Your task to perform on an android device: change keyboard looks Image 0: 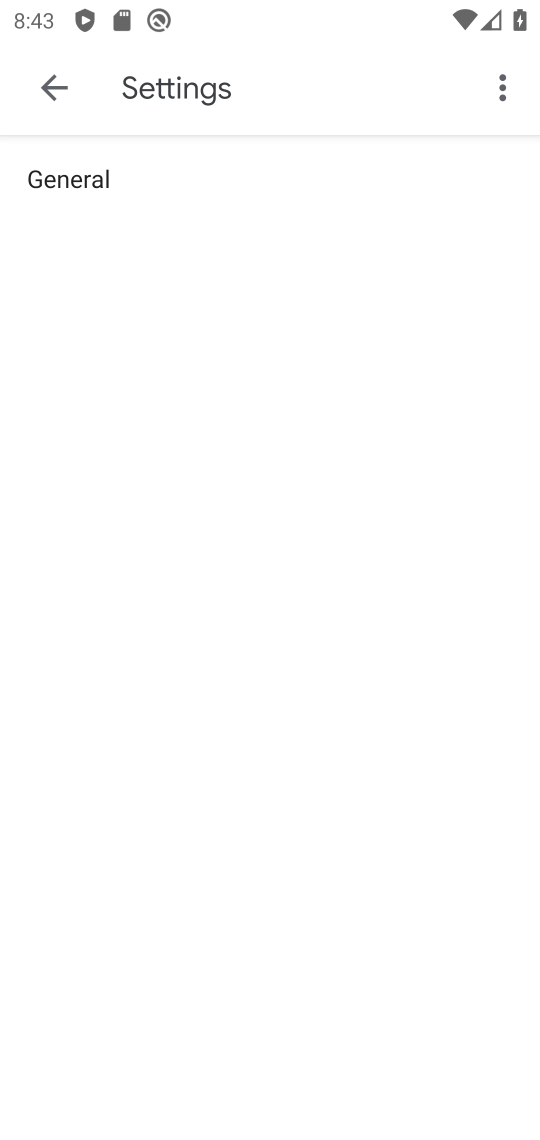
Step 0: press home button
Your task to perform on an android device: change keyboard looks Image 1: 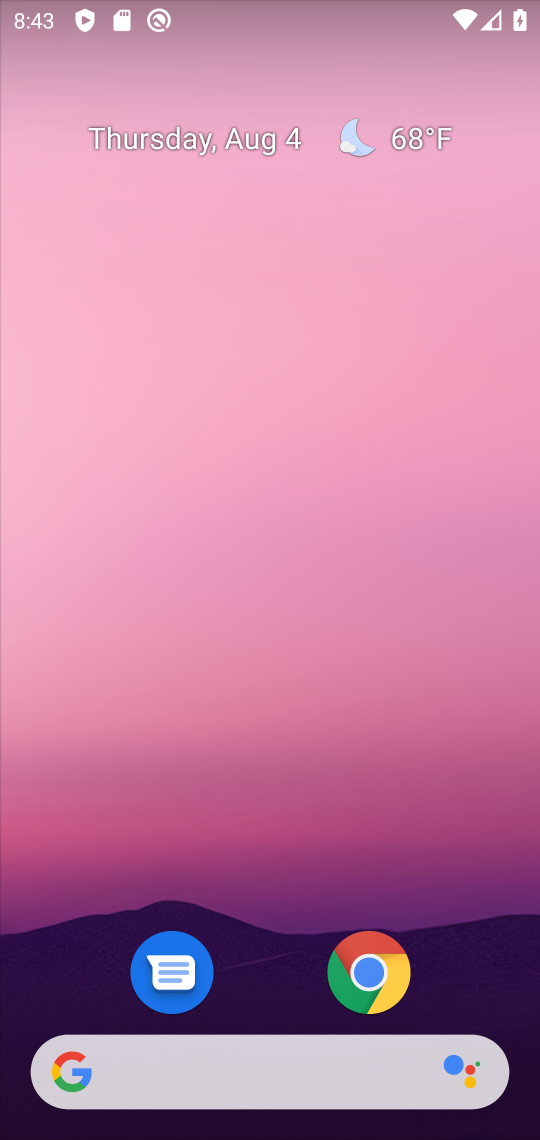
Step 1: drag from (279, 873) to (233, 30)
Your task to perform on an android device: change keyboard looks Image 2: 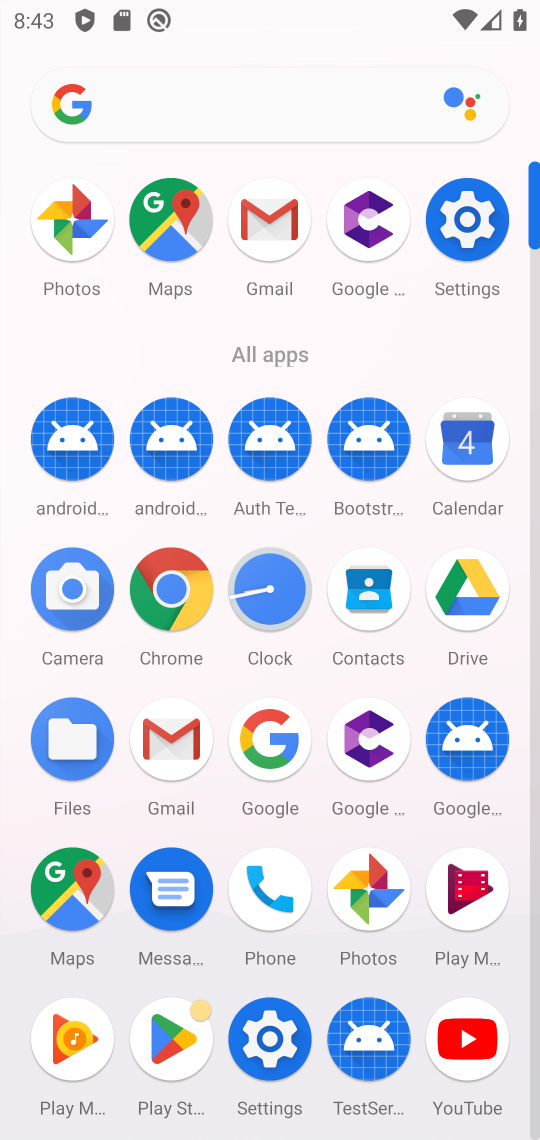
Step 2: click (464, 221)
Your task to perform on an android device: change keyboard looks Image 3: 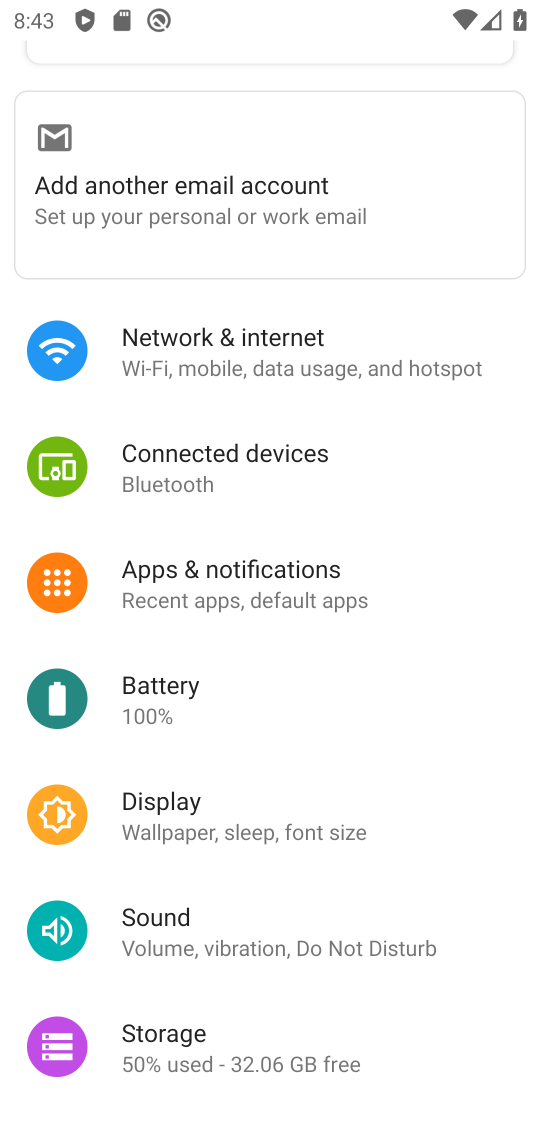
Step 3: drag from (285, 868) to (364, 2)
Your task to perform on an android device: change keyboard looks Image 4: 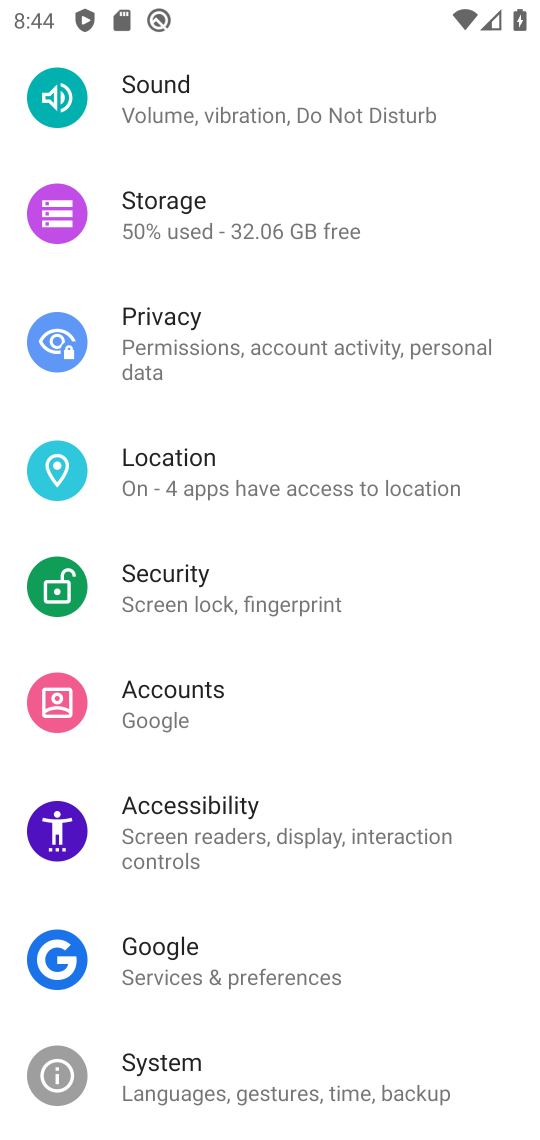
Step 4: click (238, 1071)
Your task to perform on an android device: change keyboard looks Image 5: 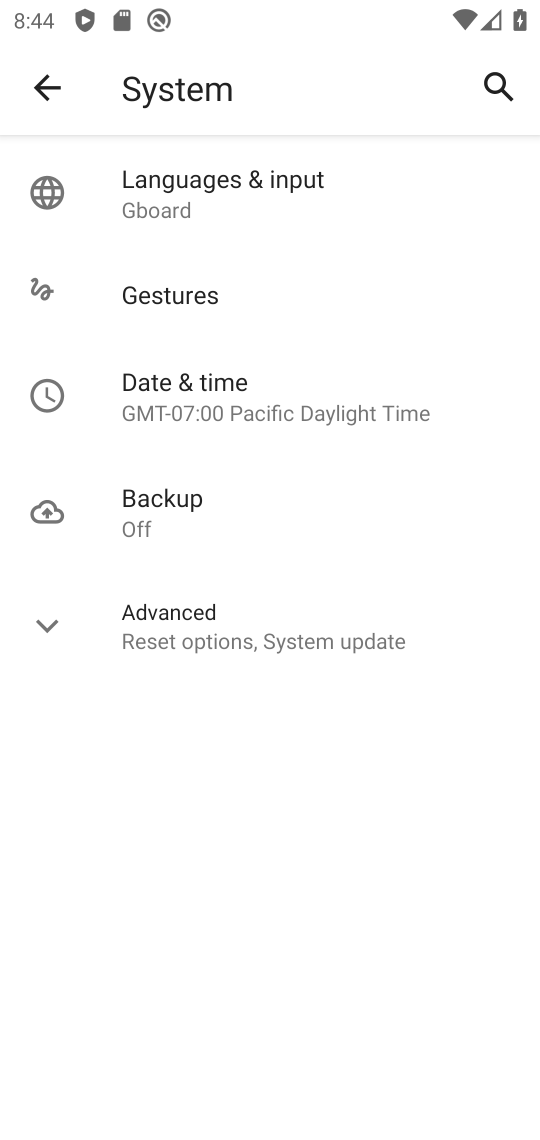
Step 5: click (253, 194)
Your task to perform on an android device: change keyboard looks Image 6: 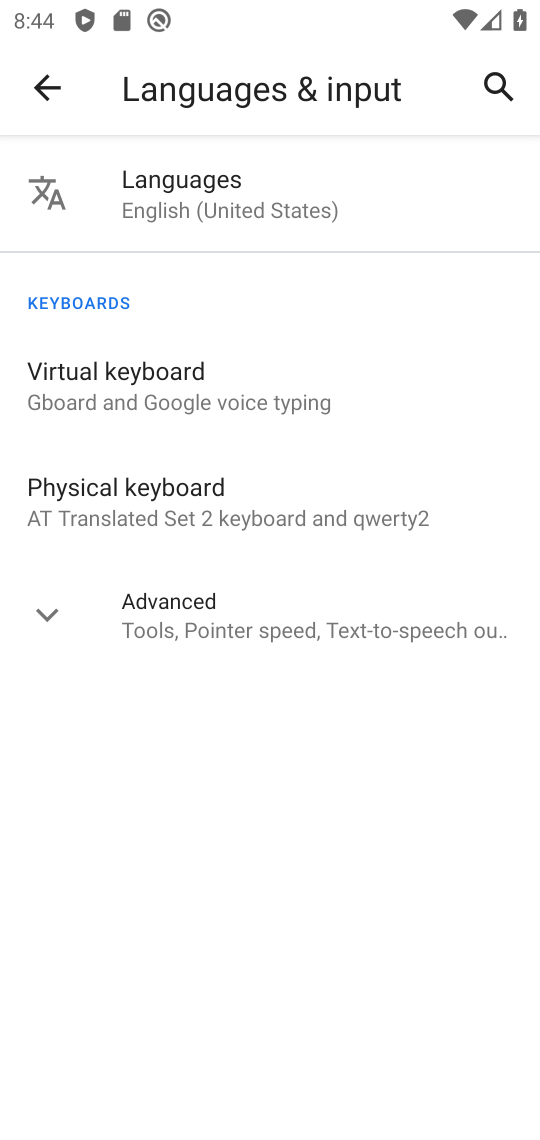
Step 6: click (198, 385)
Your task to perform on an android device: change keyboard looks Image 7: 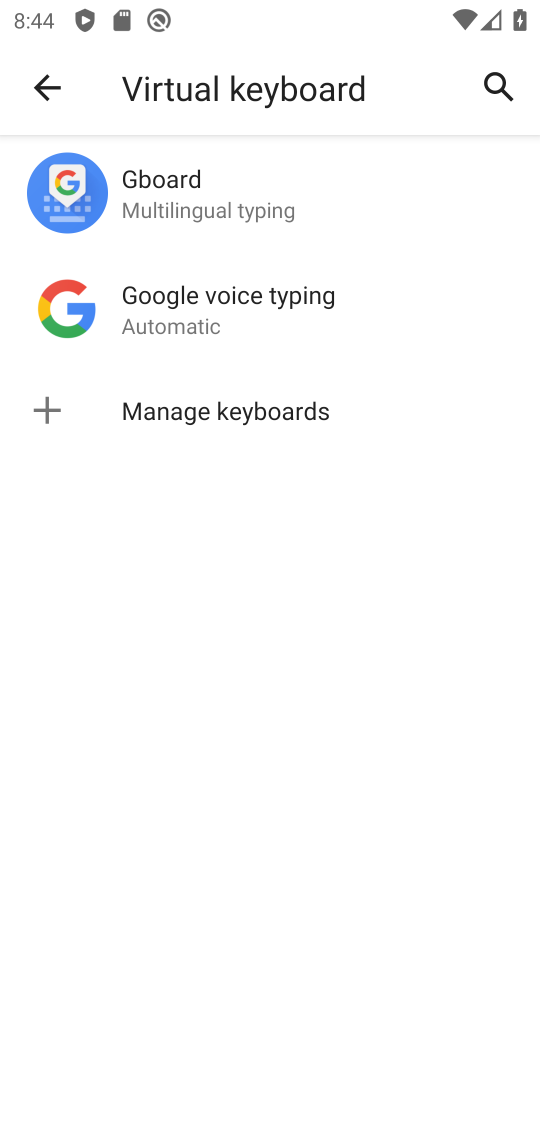
Step 7: click (225, 173)
Your task to perform on an android device: change keyboard looks Image 8: 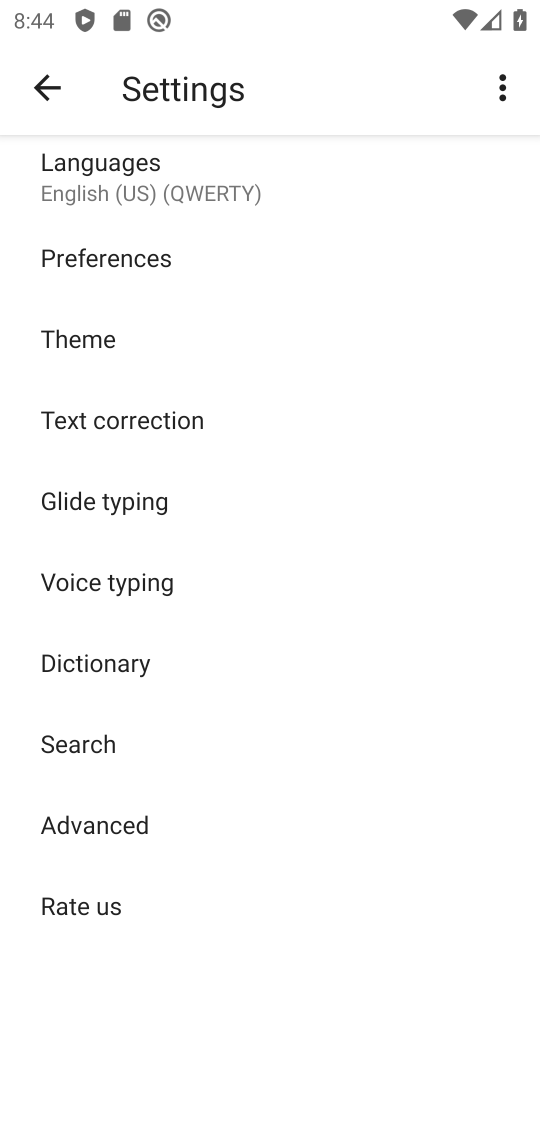
Step 8: click (100, 335)
Your task to perform on an android device: change keyboard looks Image 9: 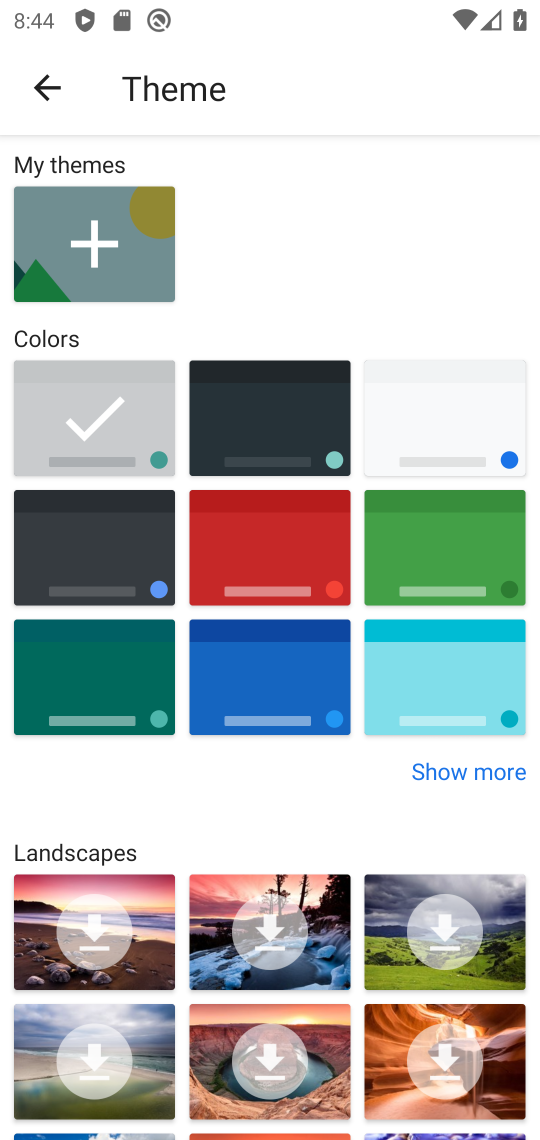
Step 9: click (227, 409)
Your task to perform on an android device: change keyboard looks Image 10: 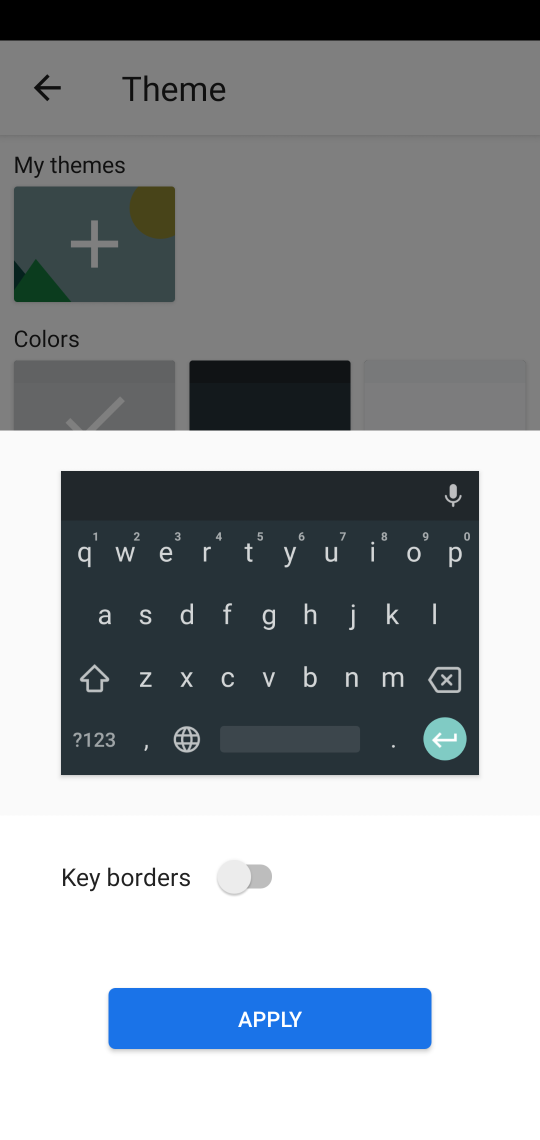
Step 10: click (255, 864)
Your task to perform on an android device: change keyboard looks Image 11: 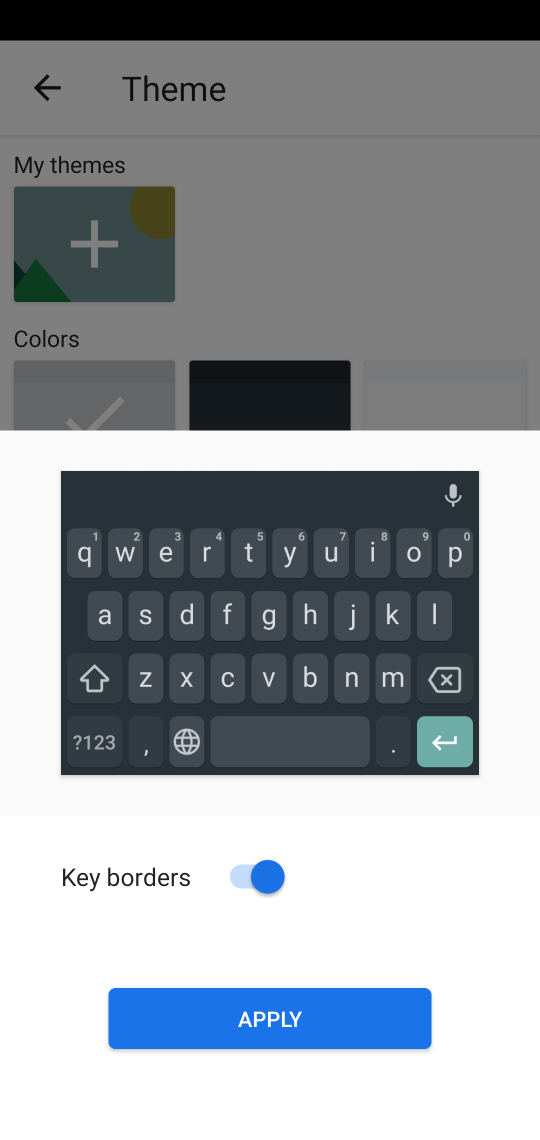
Step 11: click (278, 1021)
Your task to perform on an android device: change keyboard looks Image 12: 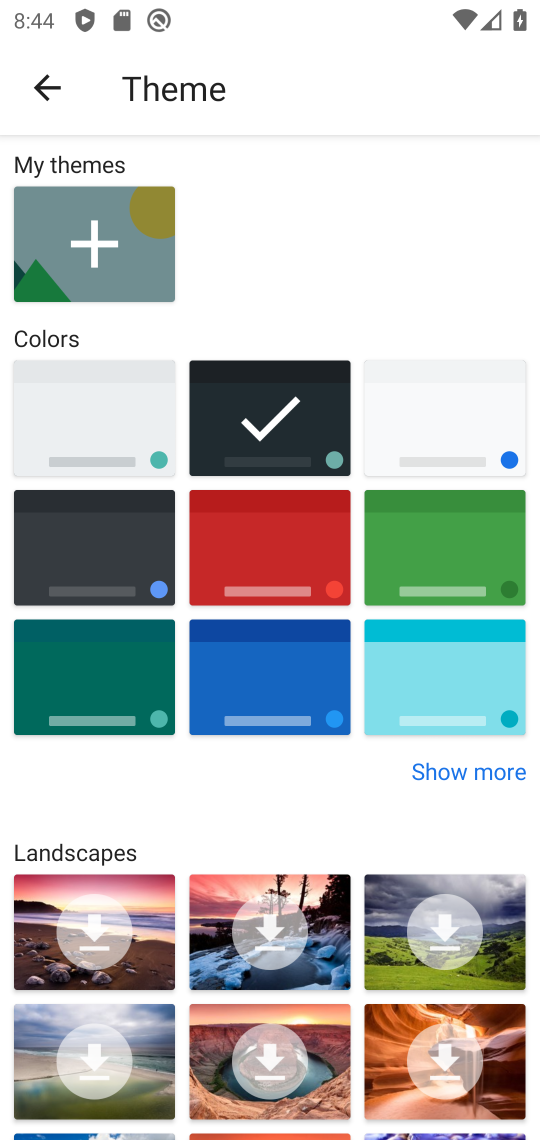
Step 12: task complete